Your task to perform on an android device: Open Youtube and go to "Your channel" Image 0: 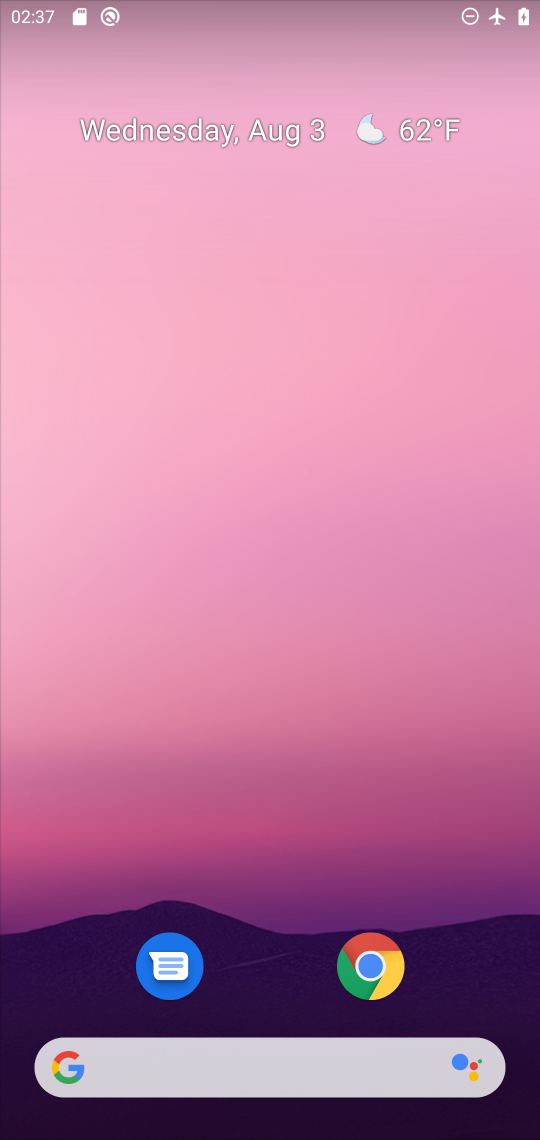
Step 0: drag from (263, 909) to (215, 352)
Your task to perform on an android device: Open Youtube and go to "Your channel" Image 1: 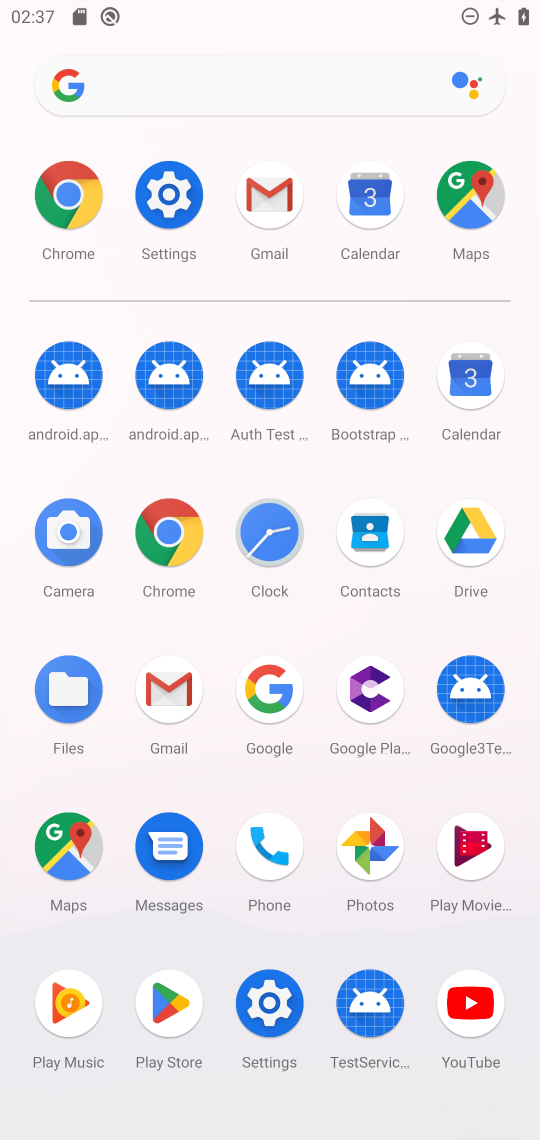
Step 1: click (466, 1013)
Your task to perform on an android device: Open Youtube and go to "Your channel" Image 2: 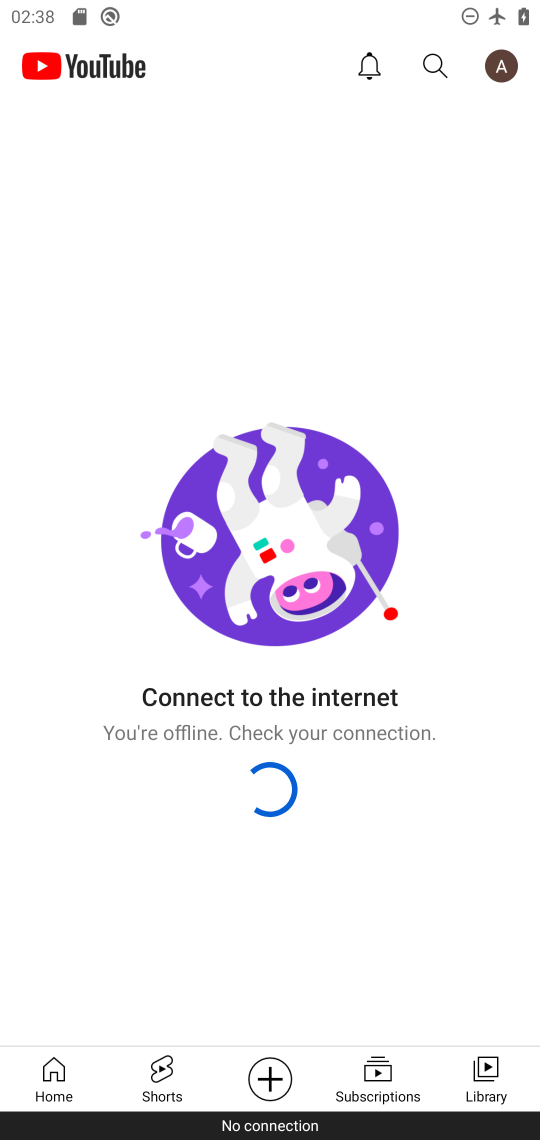
Step 2: click (507, 65)
Your task to perform on an android device: Open Youtube and go to "Your channel" Image 3: 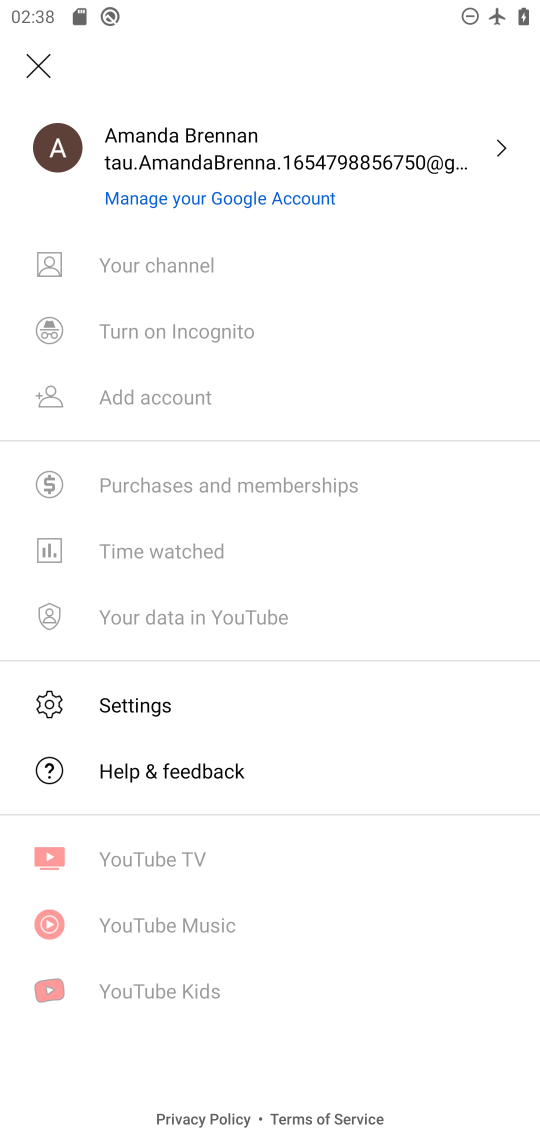
Step 3: click (156, 262)
Your task to perform on an android device: Open Youtube and go to "Your channel" Image 4: 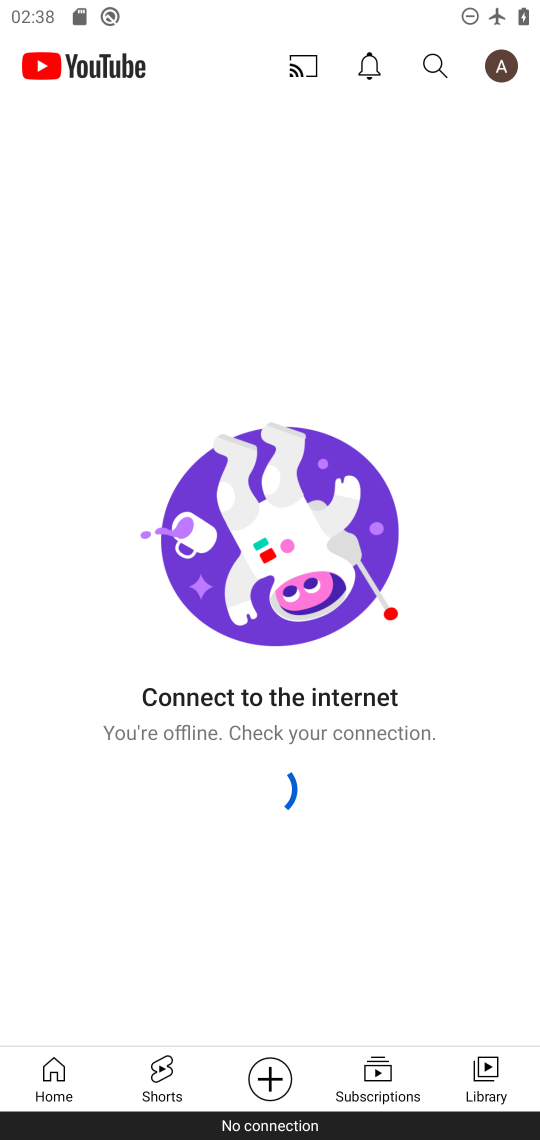
Step 4: task complete